Your task to perform on an android device: manage bookmarks in the chrome app Image 0: 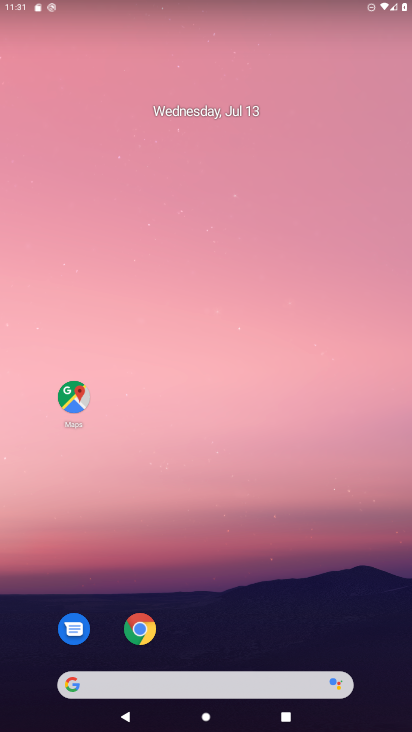
Step 0: click (137, 633)
Your task to perform on an android device: manage bookmarks in the chrome app Image 1: 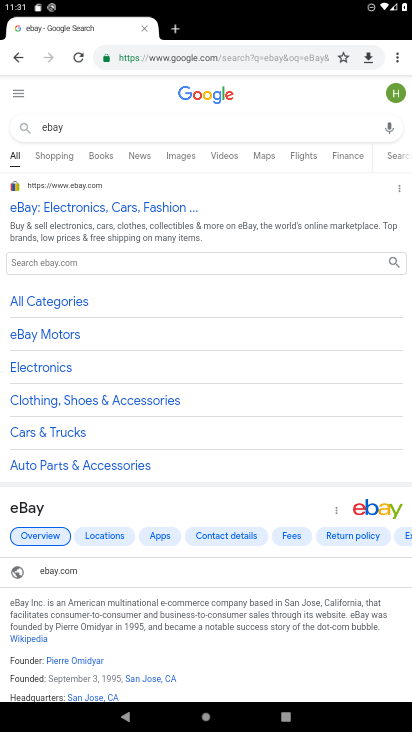
Step 1: click (396, 51)
Your task to perform on an android device: manage bookmarks in the chrome app Image 2: 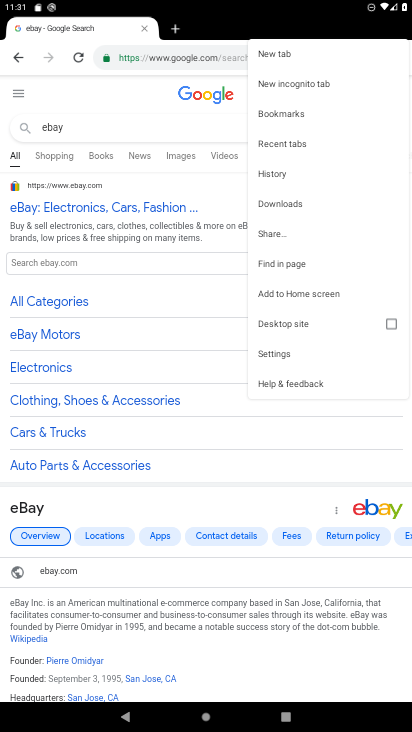
Step 2: click (284, 113)
Your task to perform on an android device: manage bookmarks in the chrome app Image 3: 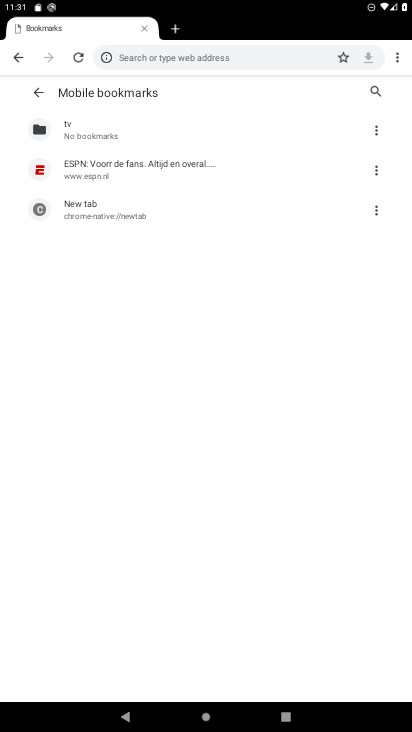
Step 3: click (377, 204)
Your task to perform on an android device: manage bookmarks in the chrome app Image 4: 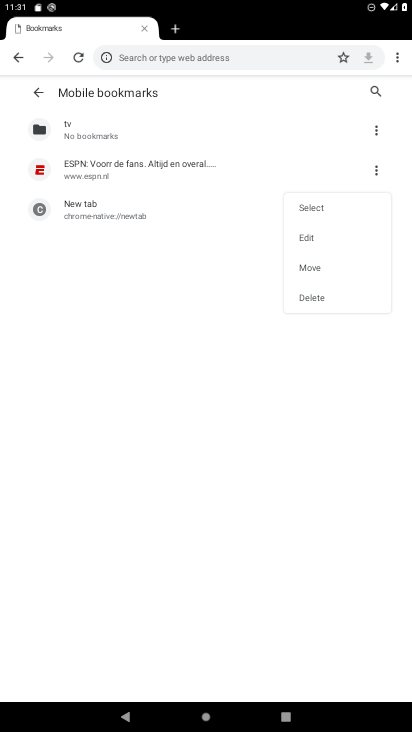
Step 4: click (314, 293)
Your task to perform on an android device: manage bookmarks in the chrome app Image 5: 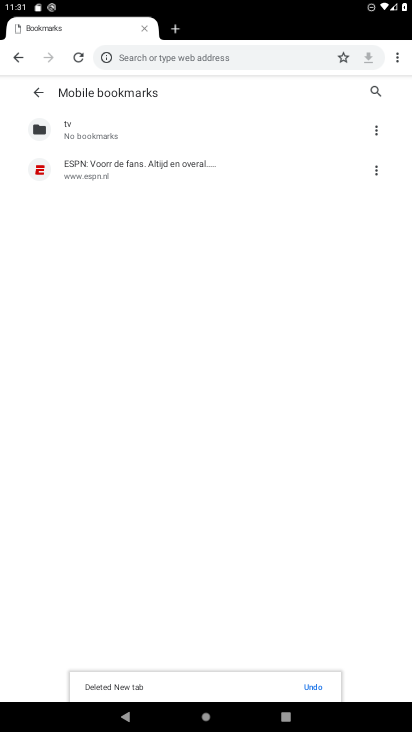
Step 5: task complete